Your task to perform on an android device: open app "Adobe Express: Graphic Design" (install if not already installed) and enter user name: "deliveries@gmail.com" and password: "regimentation" Image 0: 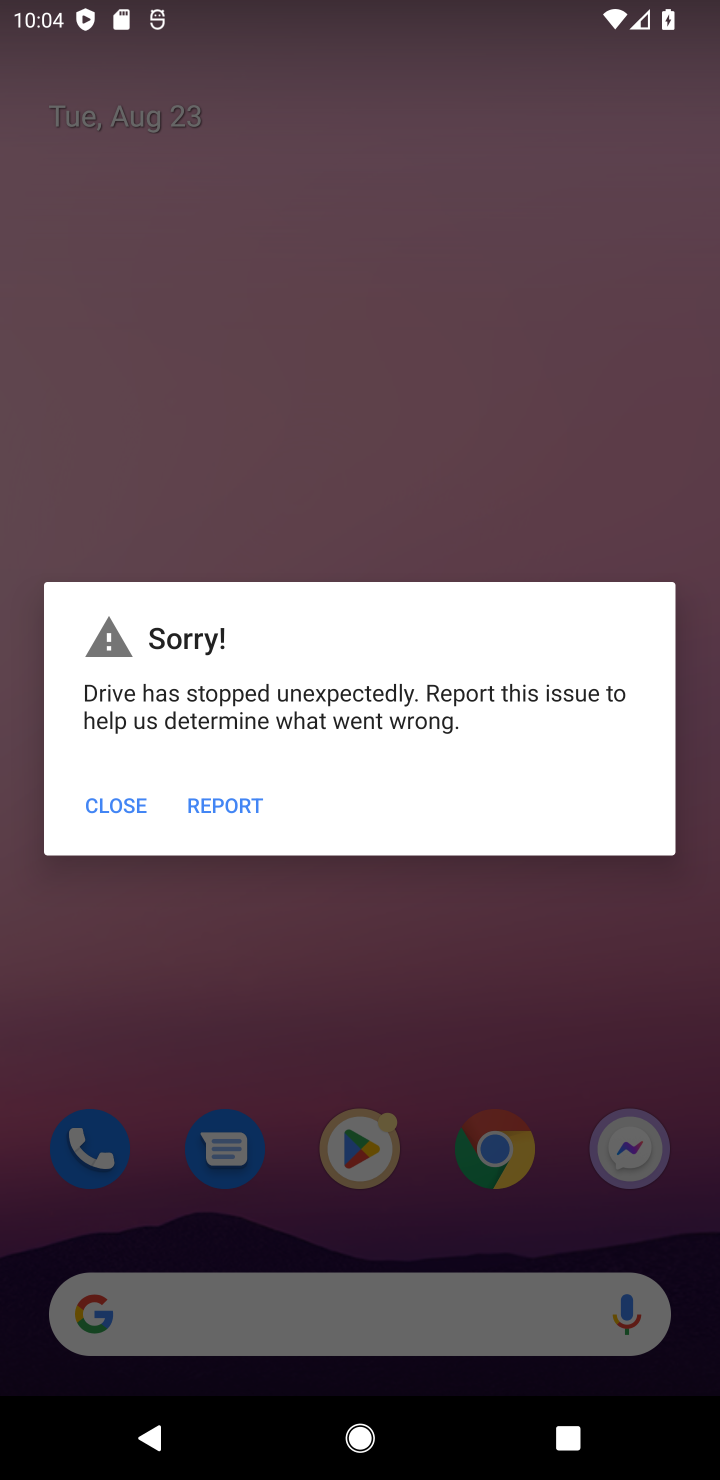
Step 0: task complete